Your task to perform on an android device: turn on notifications settings in the gmail app Image 0: 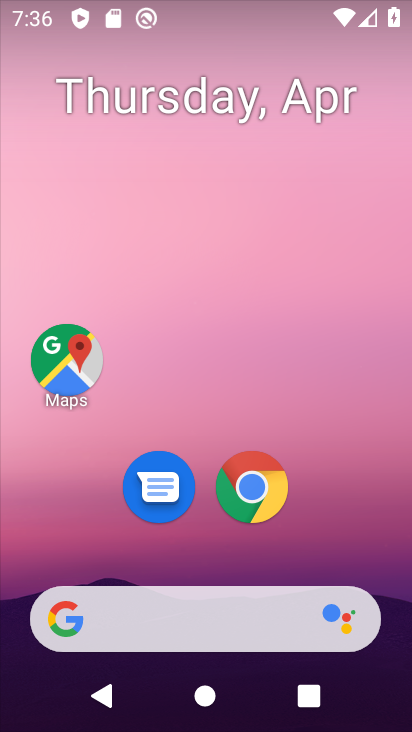
Step 0: click (342, 547)
Your task to perform on an android device: turn on notifications settings in the gmail app Image 1: 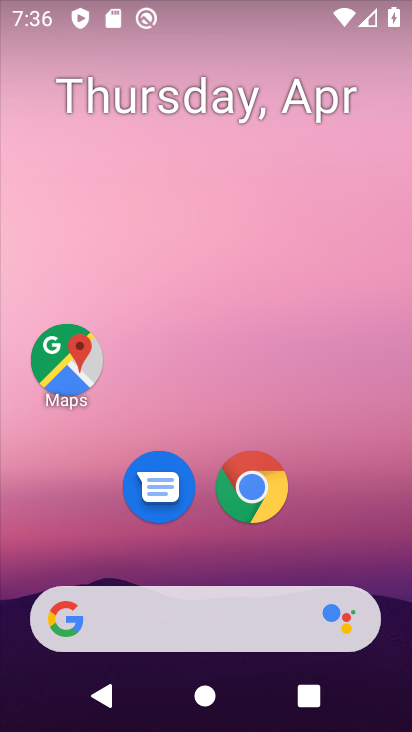
Step 1: click (342, 547)
Your task to perform on an android device: turn on notifications settings in the gmail app Image 2: 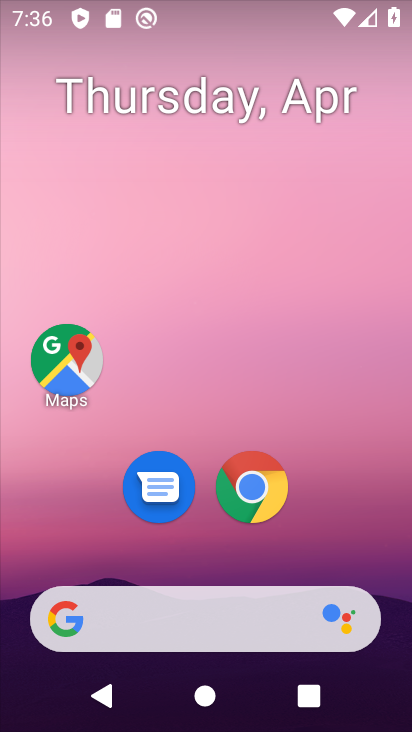
Step 2: drag from (342, 547) to (306, 131)
Your task to perform on an android device: turn on notifications settings in the gmail app Image 3: 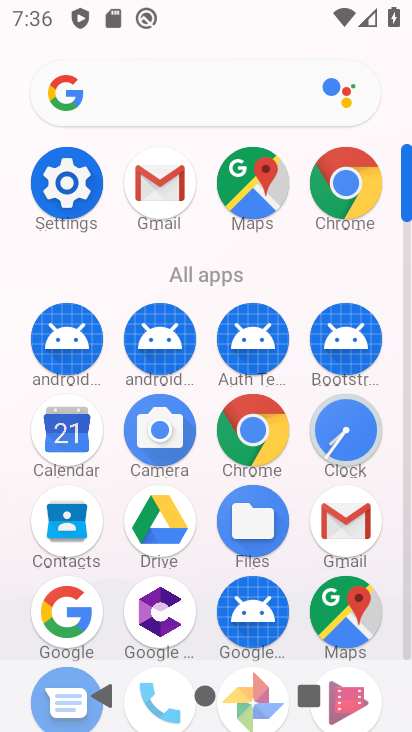
Step 3: click (336, 532)
Your task to perform on an android device: turn on notifications settings in the gmail app Image 4: 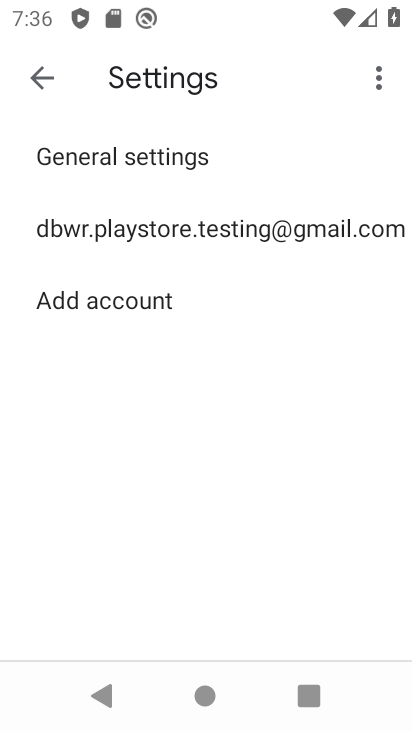
Step 4: click (169, 232)
Your task to perform on an android device: turn on notifications settings in the gmail app Image 5: 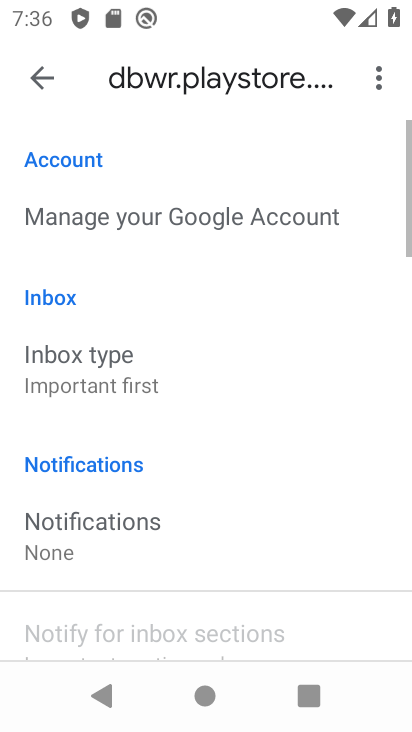
Step 5: click (120, 528)
Your task to perform on an android device: turn on notifications settings in the gmail app Image 6: 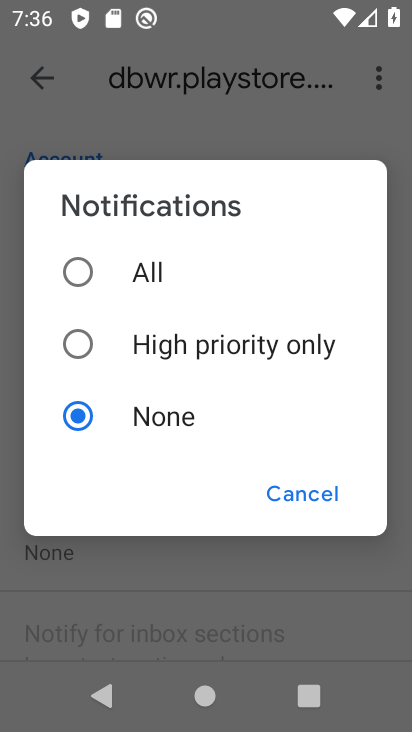
Step 6: click (138, 290)
Your task to perform on an android device: turn on notifications settings in the gmail app Image 7: 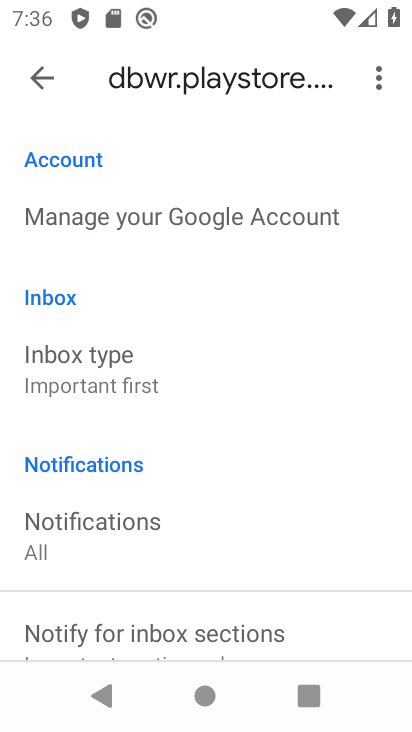
Step 7: task complete